Your task to perform on an android device: add a label to a message in the gmail app Image 0: 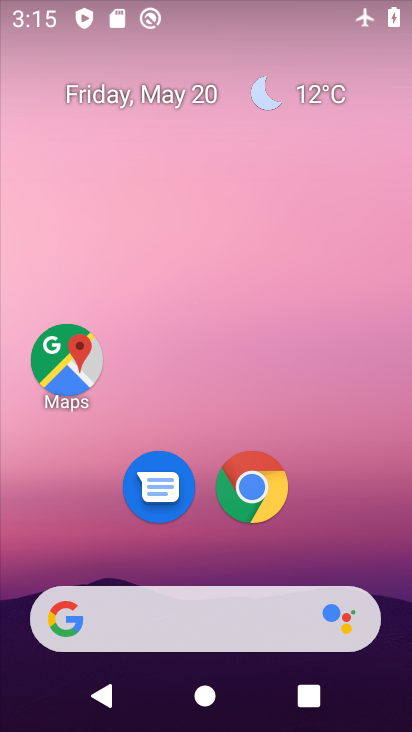
Step 0: drag from (296, 547) to (293, 137)
Your task to perform on an android device: add a label to a message in the gmail app Image 1: 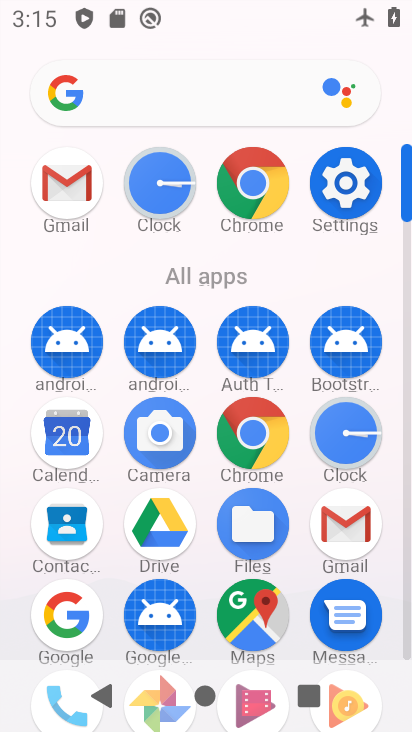
Step 1: click (343, 521)
Your task to perform on an android device: add a label to a message in the gmail app Image 2: 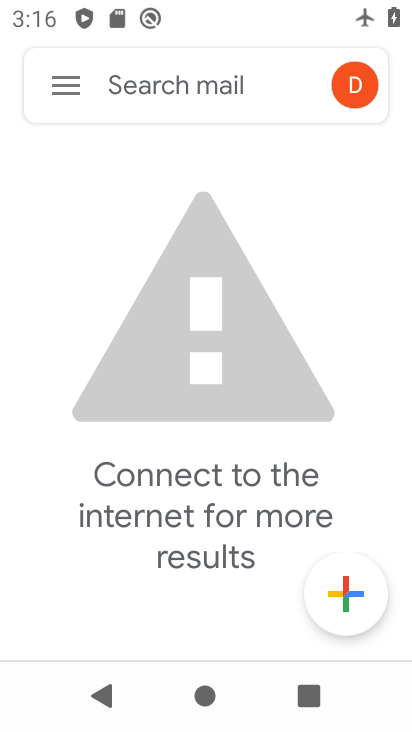
Step 2: click (51, 92)
Your task to perform on an android device: add a label to a message in the gmail app Image 3: 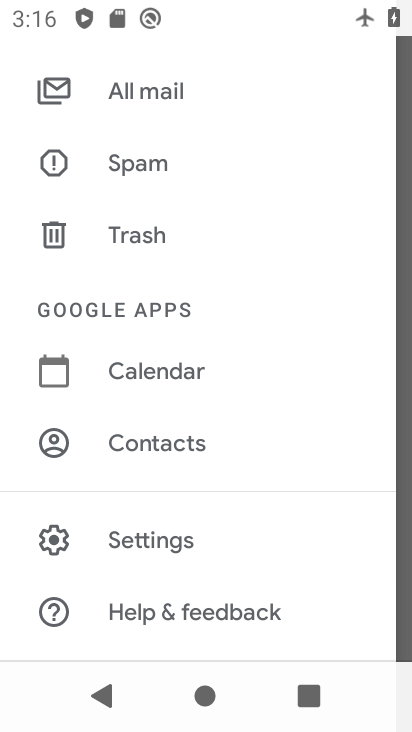
Step 3: click (160, 98)
Your task to perform on an android device: add a label to a message in the gmail app Image 4: 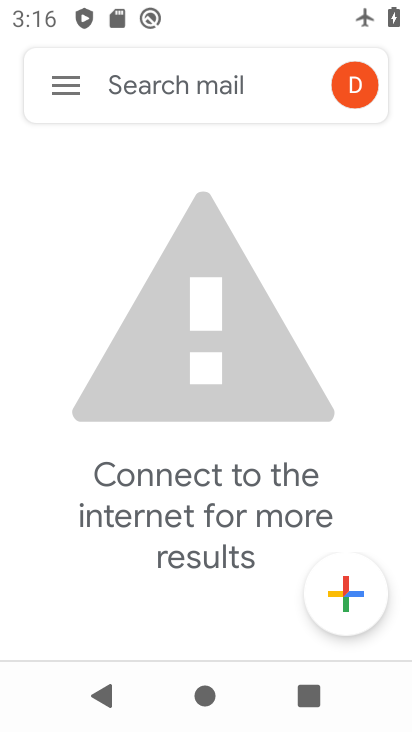
Step 4: task complete